Your task to perform on an android device: Do I have any events this weekend? Image 0: 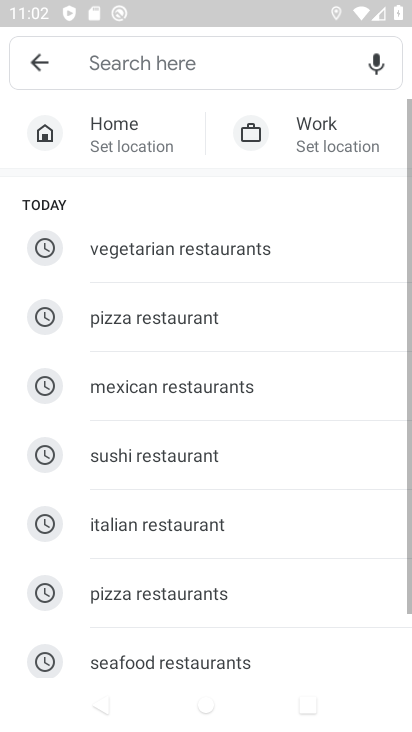
Step 0: drag from (227, 568) to (394, 188)
Your task to perform on an android device: Do I have any events this weekend? Image 1: 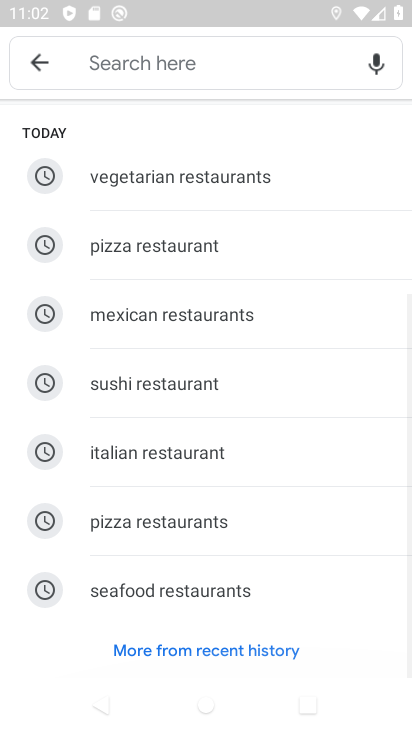
Step 1: press home button
Your task to perform on an android device: Do I have any events this weekend? Image 2: 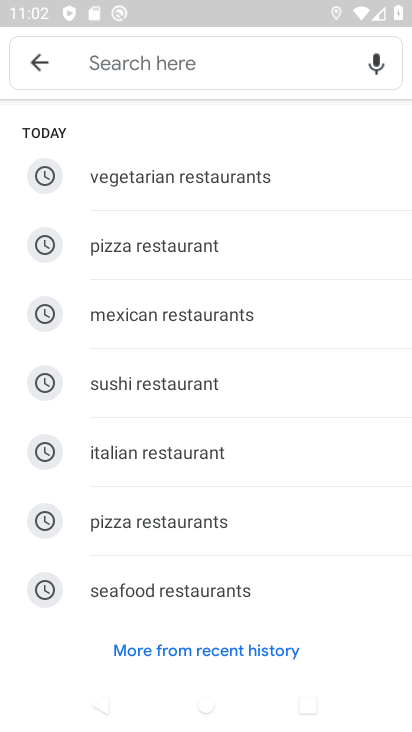
Step 2: drag from (394, 188) to (388, 331)
Your task to perform on an android device: Do I have any events this weekend? Image 3: 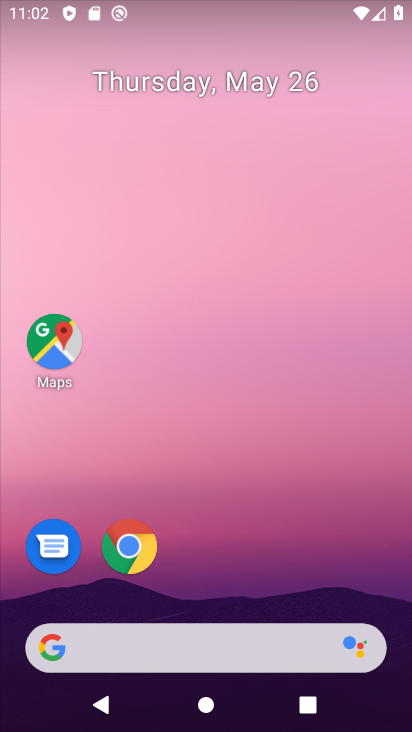
Step 3: drag from (194, 555) to (255, 104)
Your task to perform on an android device: Do I have any events this weekend? Image 4: 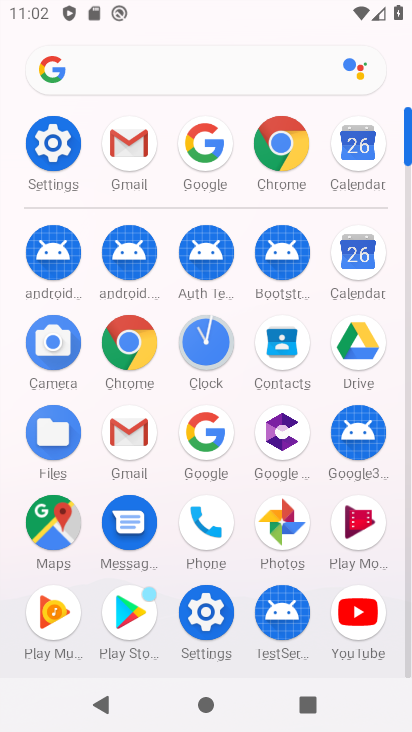
Step 4: click (357, 251)
Your task to perform on an android device: Do I have any events this weekend? Image 5: 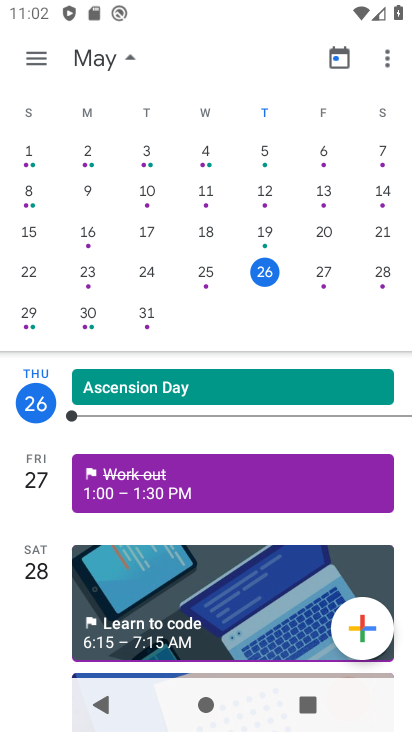
Step 5: click (387, 273)
Your task to perform on an android device: Do I have any events this weekend? Image 6: 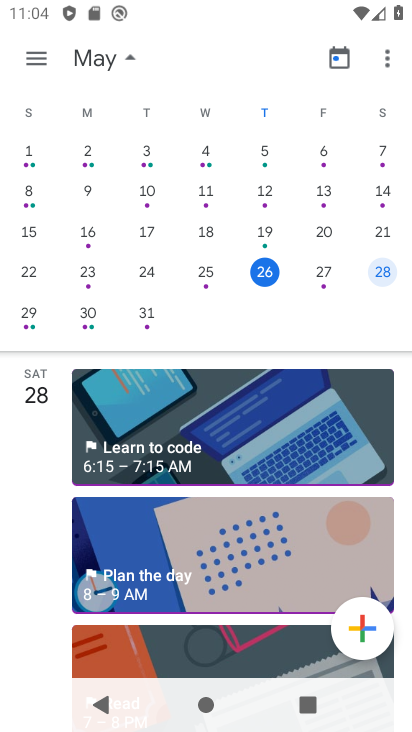
Step 6: task complete